Your task to perform on an android device: Search for razer blade on ebay, select the first entry, add it to the cart, then select checkout. Image 0: 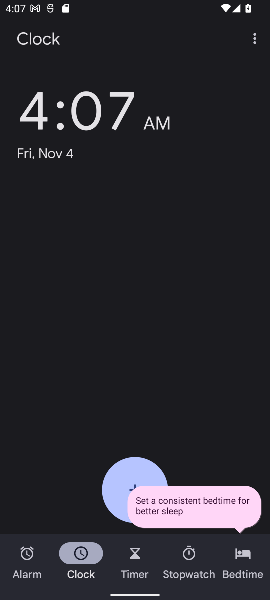
Step 0: press home button
Your task to perform on an android device: Search for razer blade on ebay, select the first entry, add it to the cart, then select checkout. Image 1: 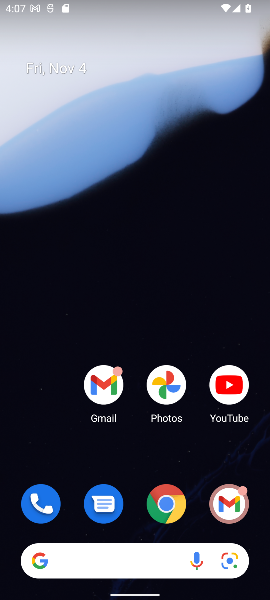
Step 1: click (166, 509)
Your task to perform on an android device: Search for razer blade on ebay, select the first entry, add it to the cart, then select checkout. Image 2: 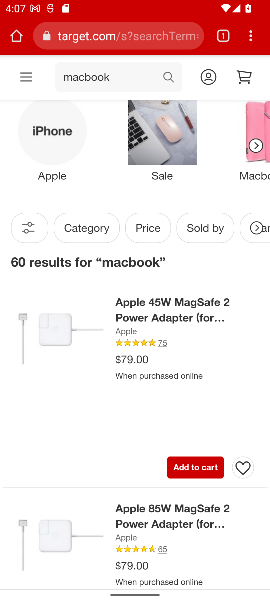
Step 2: click (78, 47)
Your task to perform on an android device: Search for razer blade on ebay, select the first entry, add it to the cart, then select checkout. Image 3: 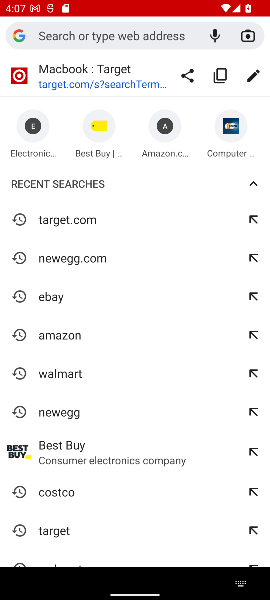
Step 3: click (55, 302)
Your task to perform on an android device: Search for razer blade on ebay, select the first entry, add it to the cart, then select checkout. Image 4: 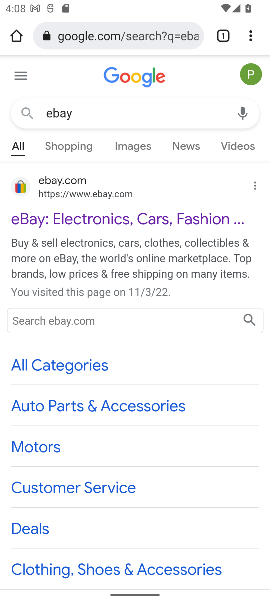
Step 4: click (69, 224)
Your task to perform on an android device: Search for razer blade on ebay, select the first entry, add it to the cart, then select checkout. Image 5: 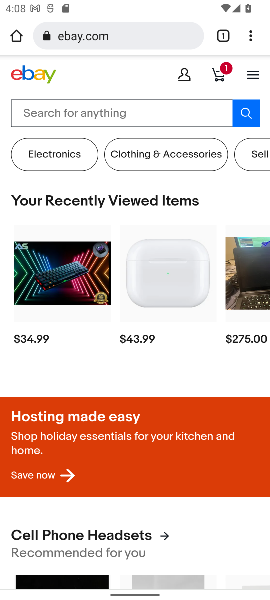
Step 5: click (72, 109)
Your task to perform on an android device: Search for razer blade on ebay, select the first entry, add it to the cart, then select checkout. Image 6: 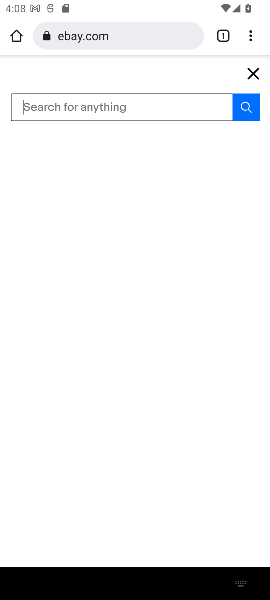
Step 6: click (33, 113)
Your task to perform on an android device: Search for razer blade on ebay, select the first entry, add it to the cart, then select checkout. Image 7: 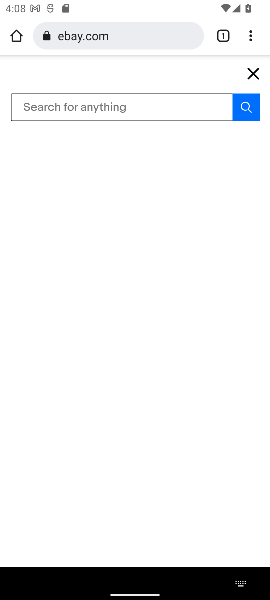
Step 7: type " razer blade"
Your task to perform on an android device: Search for razer blade on ebay, select the first entry, add it to the cart, then select checkout. Image 8: 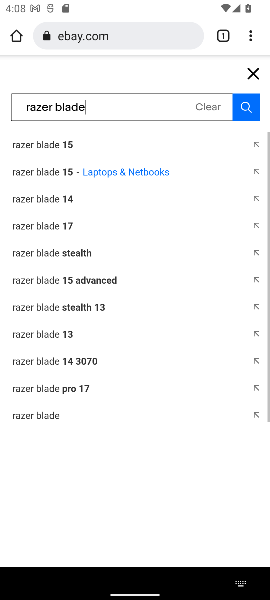
Step 8: click (31, 422)
Your task to perform on an android device: Search for razer blade on ebay, select the first entry, add it to the cart, then select checkout. Image 9: 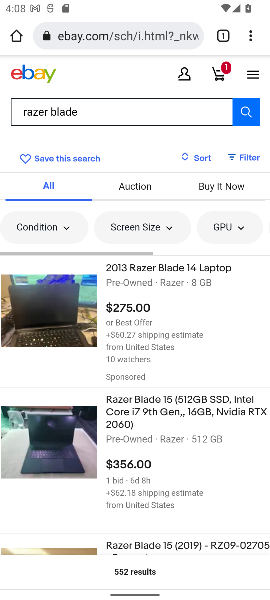
Step 9: click (94, 316)
Your task to perform on an android device: Search for razer blade on ebay, select the first entry, add it to the cart, then select checkout. Image 10: 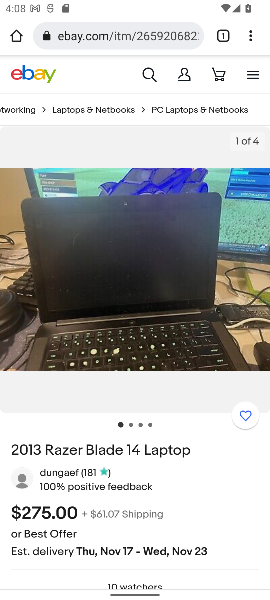
Step 10: drag from (113, 415) to (109, 194)
Your task to perform on an android device: Search for razer blade on ebay, select the first entry, add it to the cart, then select checkout. Image 11: 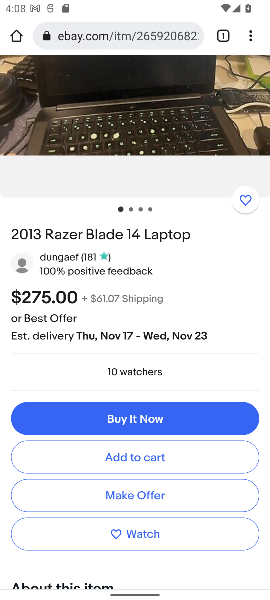
Step 11: click (139, 457)
Your task to perform on an android device: Search for razer blade on ebay, select the first entry, add it to the cart, then select checkout. Image 12: 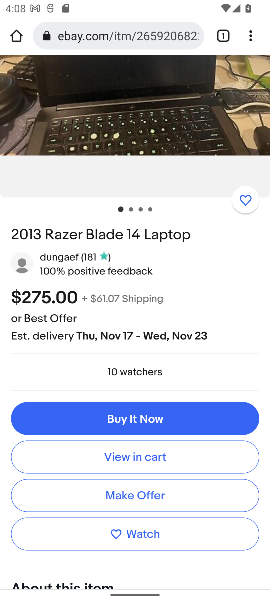
Step 12: click (133, 460)
Your task to perform on an android device: Search for razer blade on ebay, select the first entry, add it to the cart, then select checkout. Image 13: 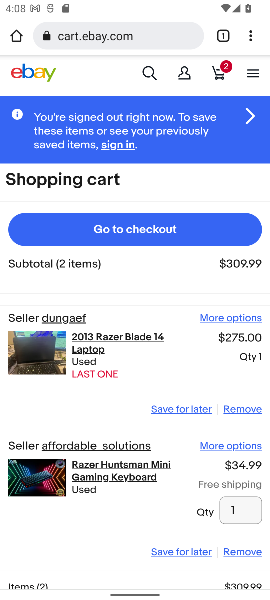
Step 13: click (111, 220)
Your task to perform on an android device: Search for razer blade on ebay, select the first entry, add it to the cart, then select checkout. Image 14: 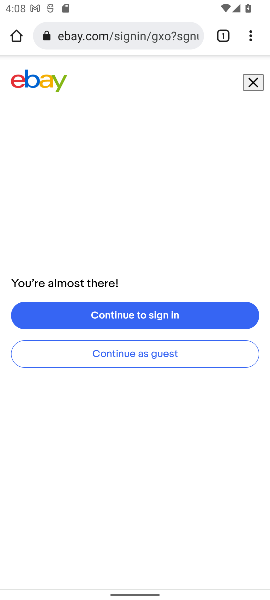
Step 14: task complete